Your task to perform on an android device: Open Google Maps Image 0: 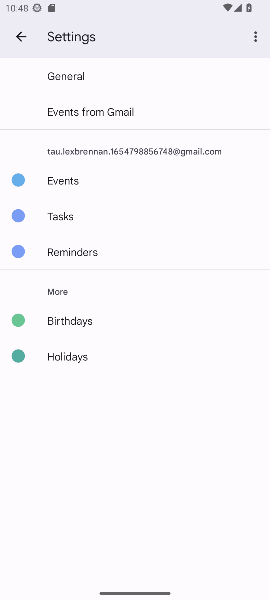
Step 0: press home button
Your task to perform on an android device: Open Google Maps Image 1: 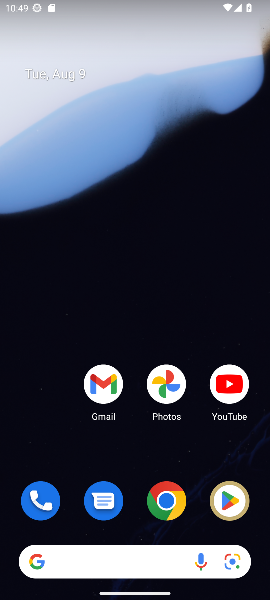
Step 1: drag from (131, 464) to (102, 134)
Your task to perform on an android device: Open Google Maps Image 2: 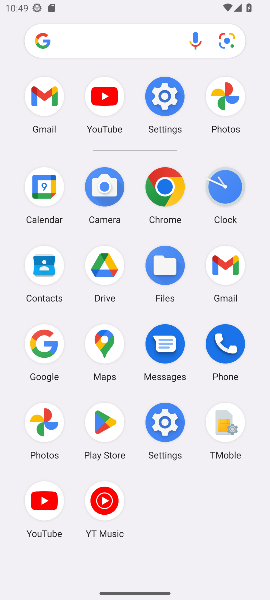
Step 2: click (100, 349)
Your task to perform on an android device: Open Google Maps Image 3: 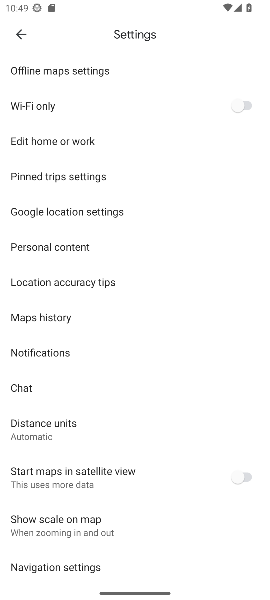
Step 3: task complete